Your task to perform on an android device: Search for a new lawnmower on Lowes. Image 0: 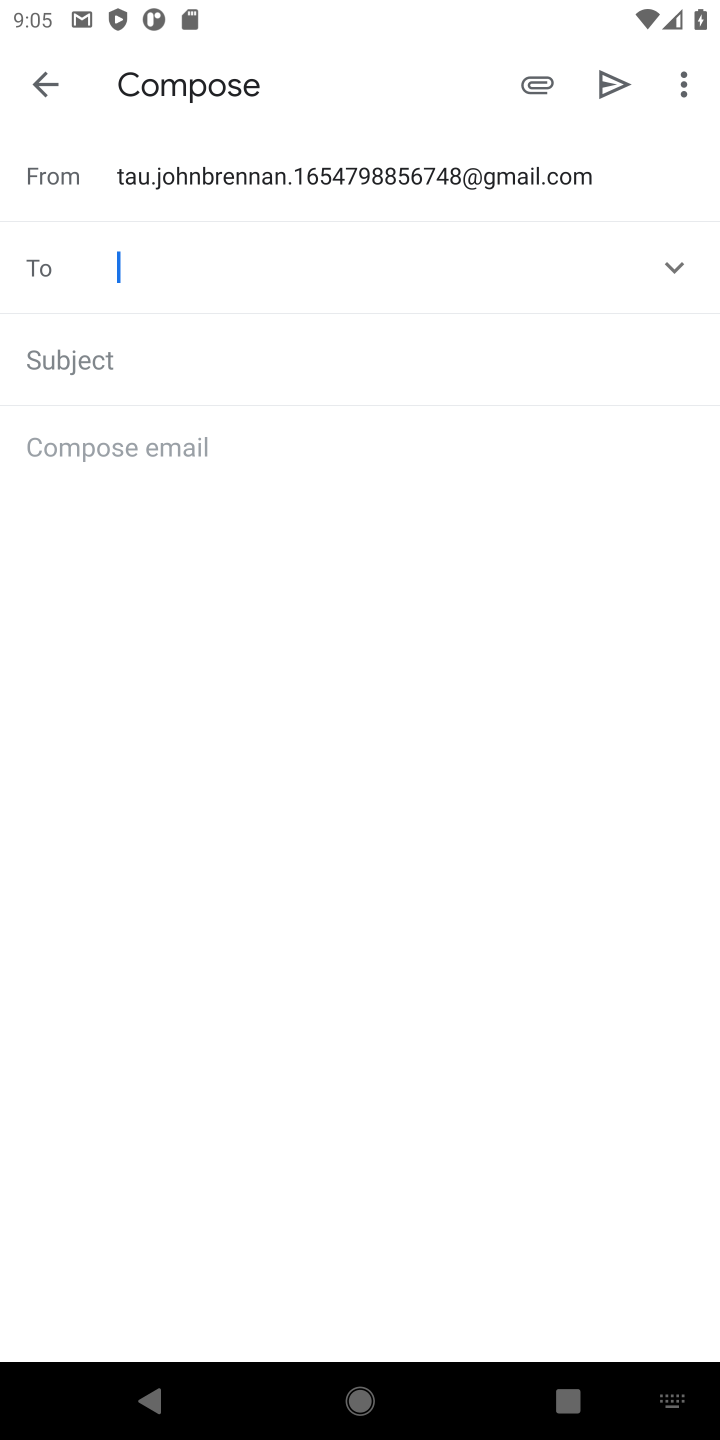
Step 0: press home button
Your task to perform on an android device: Search for a new lawnmower on Lowes. Image 1: 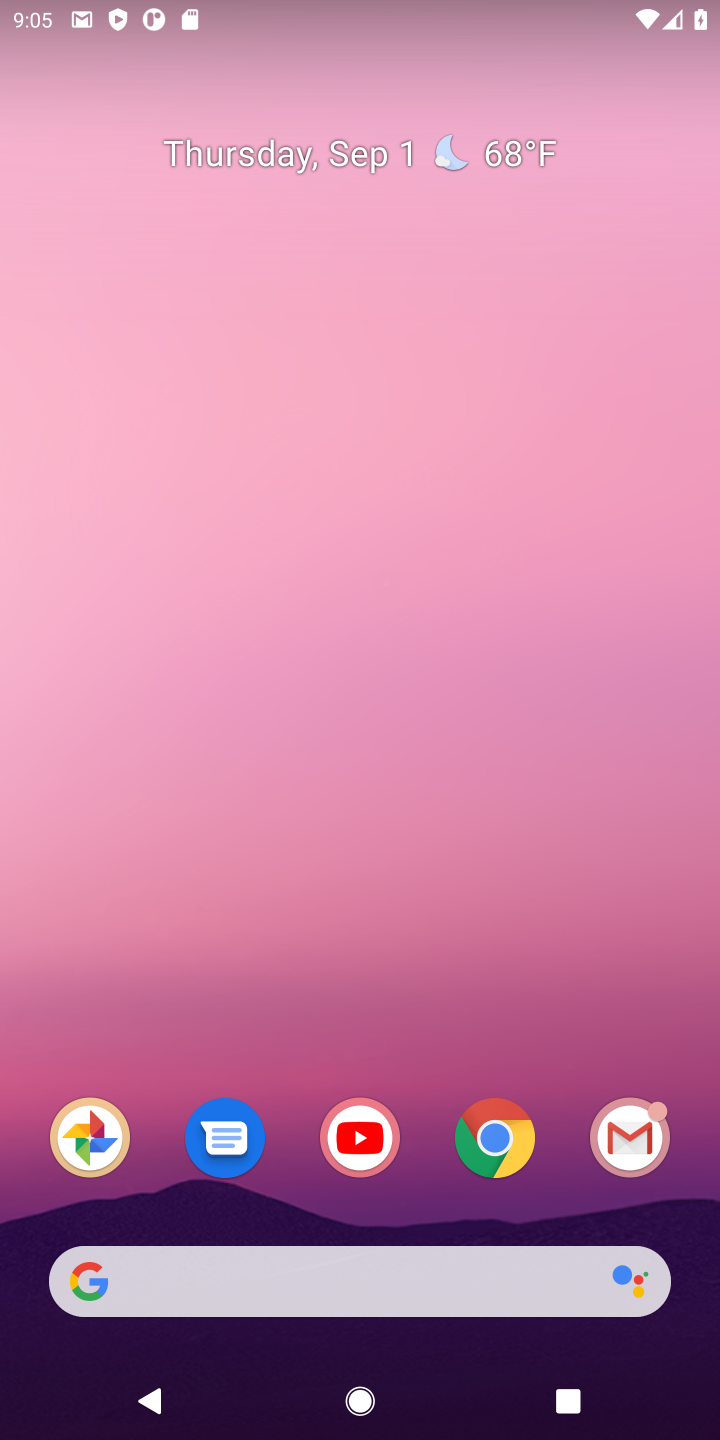
Step 1: click (503, 1151)
Your task to perform on an android device: Search for a new lawnmower on Lowes. Image 2: 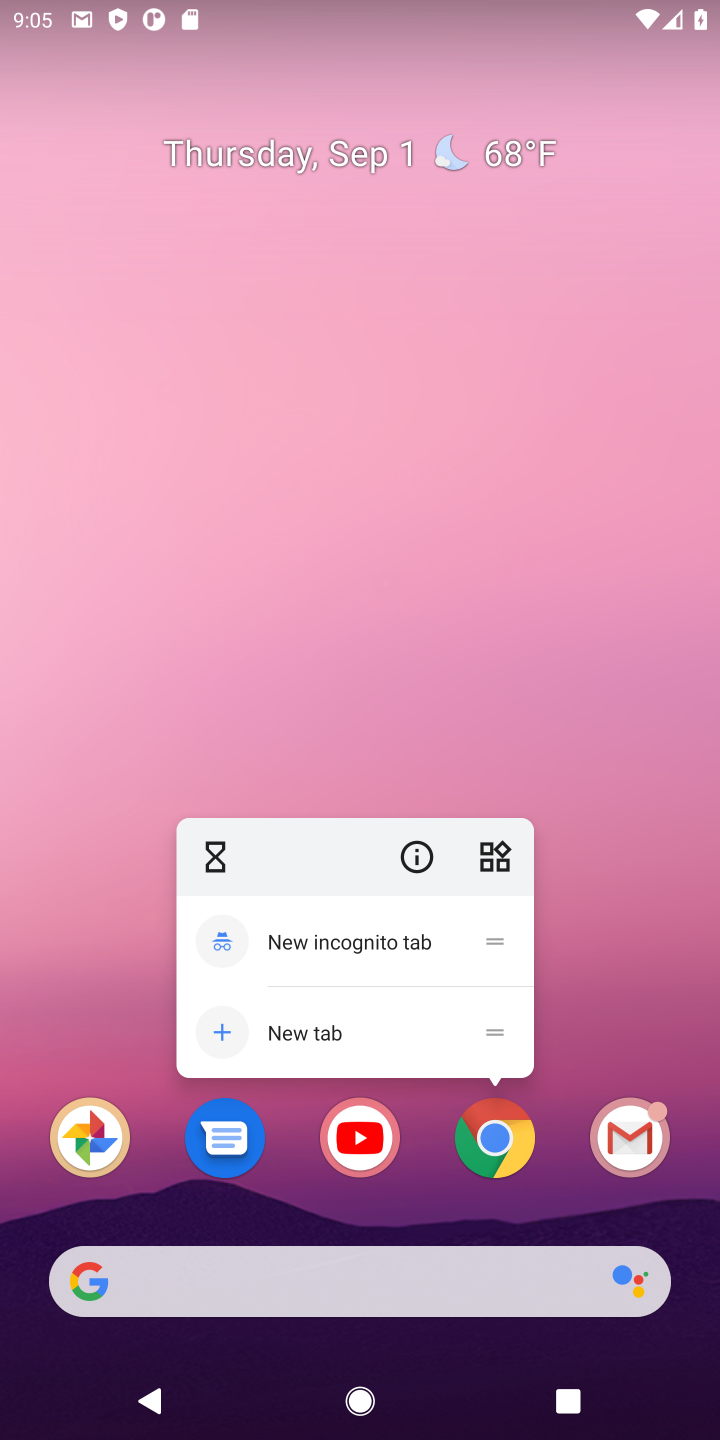
Step 2: click (490, 1137)
Your task to perform on an android device: Search for a new lawnmower on Lowes. Image 3: 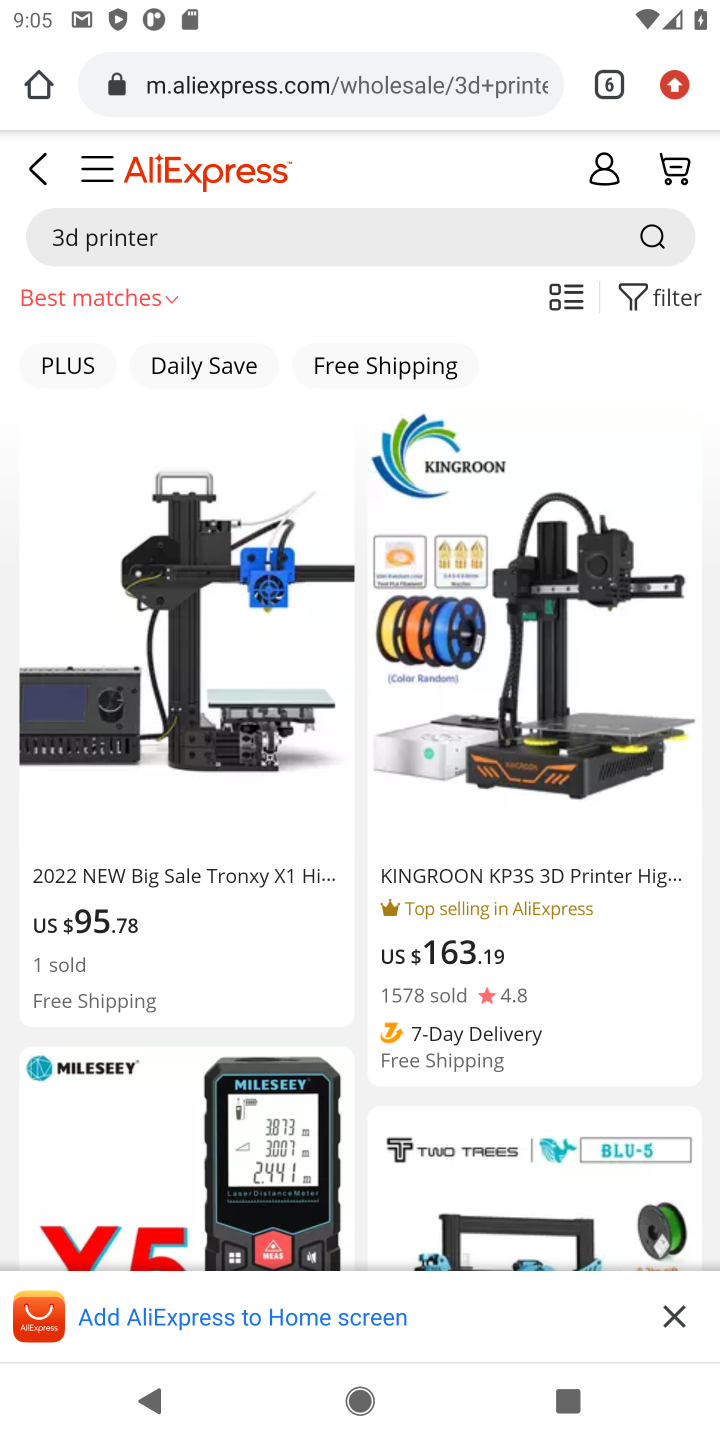
Step 3: click (613, 75)
Your task to perform on an android device: Search for a new lawnmower on Lowes. Image 4: 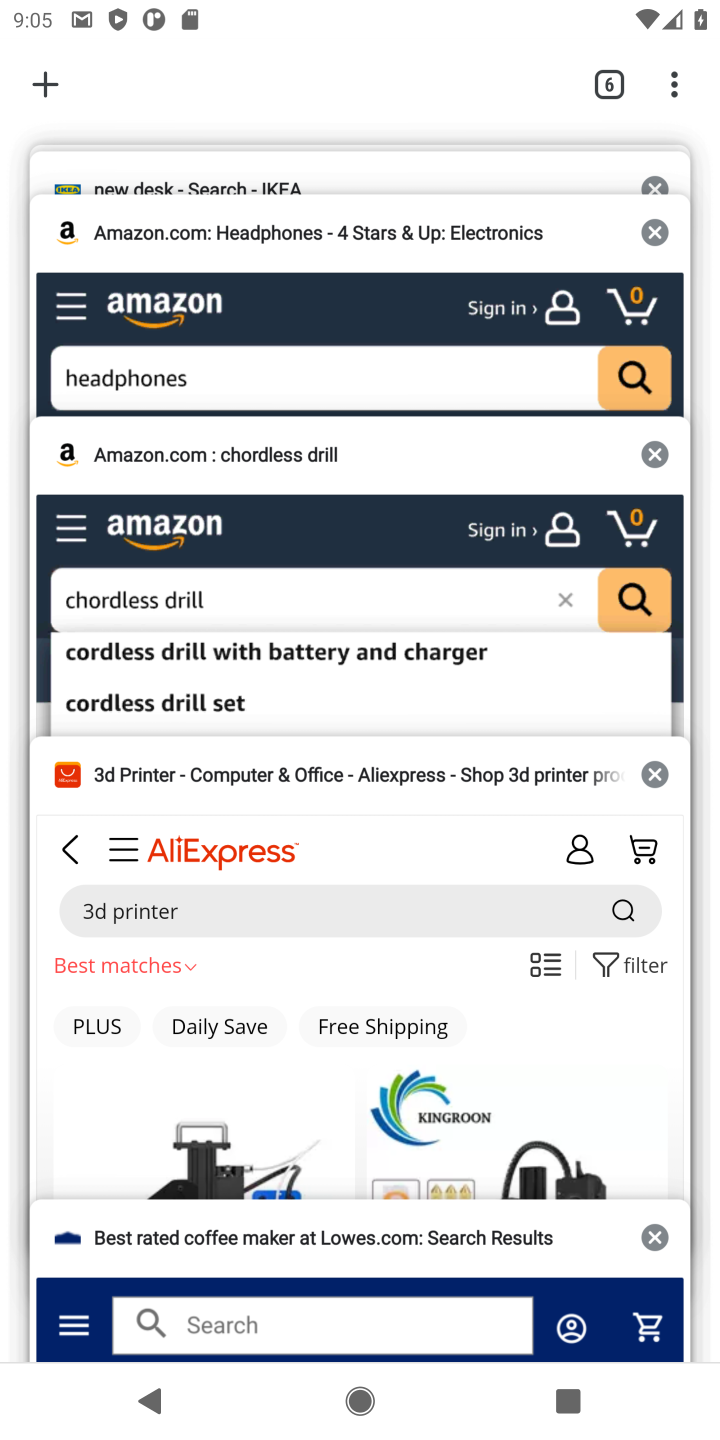
Step 4: click (291, 1249)
Your task to perform on an android device: Search for a new lawnmower on Lowes. Image 5: 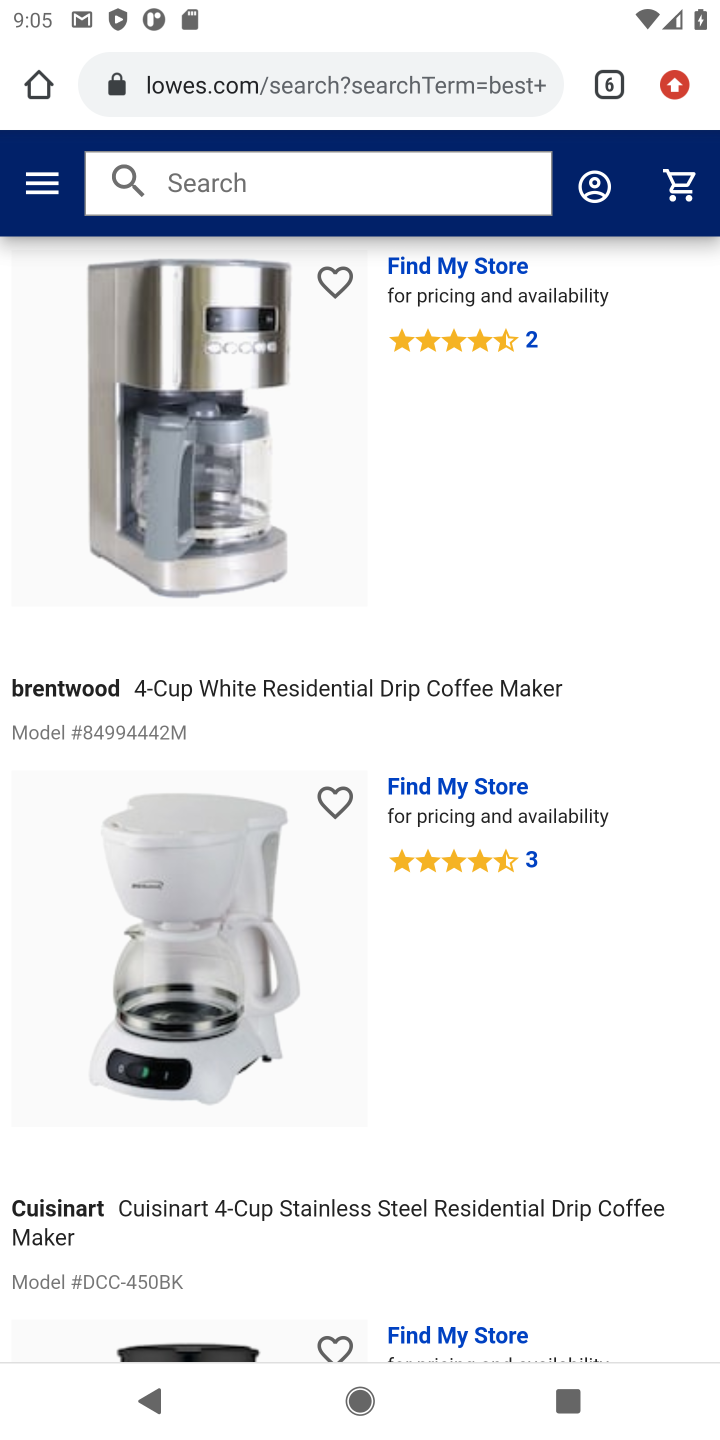
Step 5: click (451, 187)
Your task to perform on an android device: Search for a new lawnmower on Lowes. Image 6: 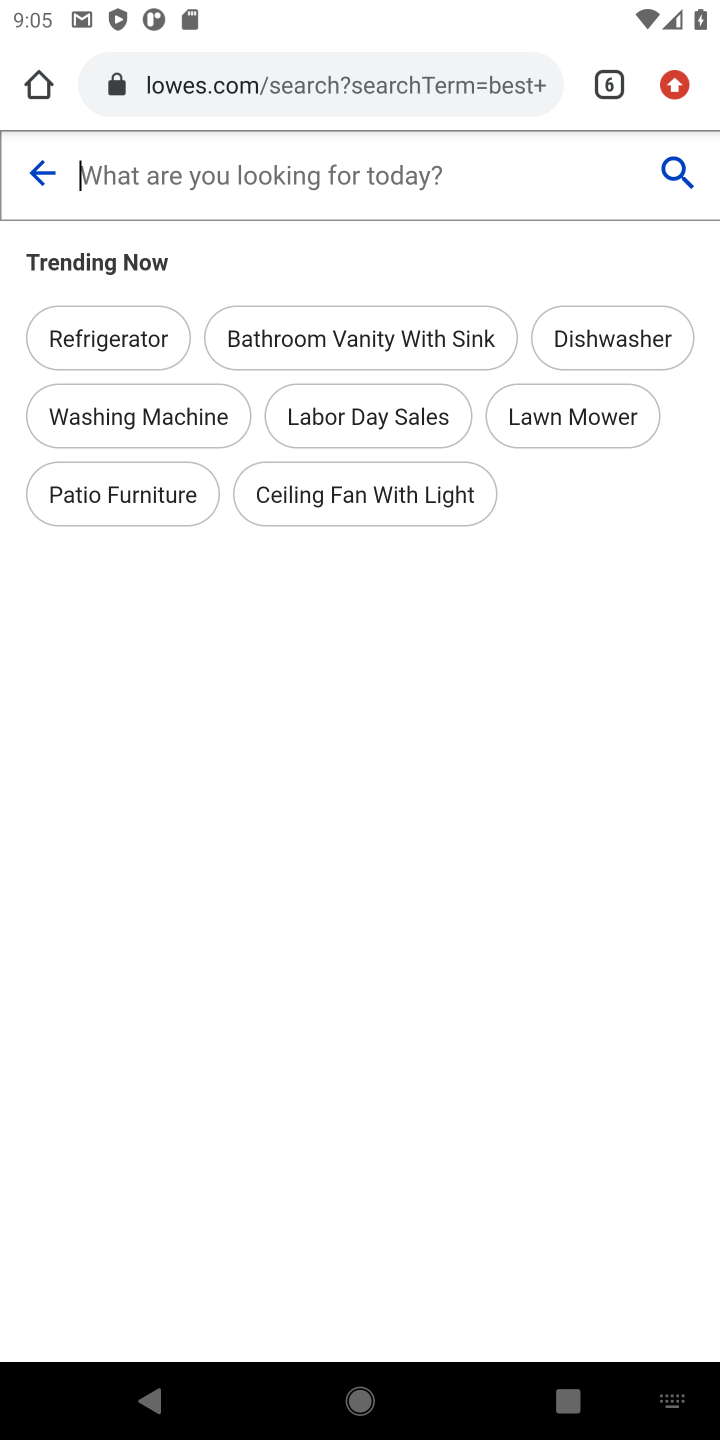
Step 6: type "new lawnmower"
Your task to perform on an android device: Search for a new lawnmower on Lowes. Image 7: 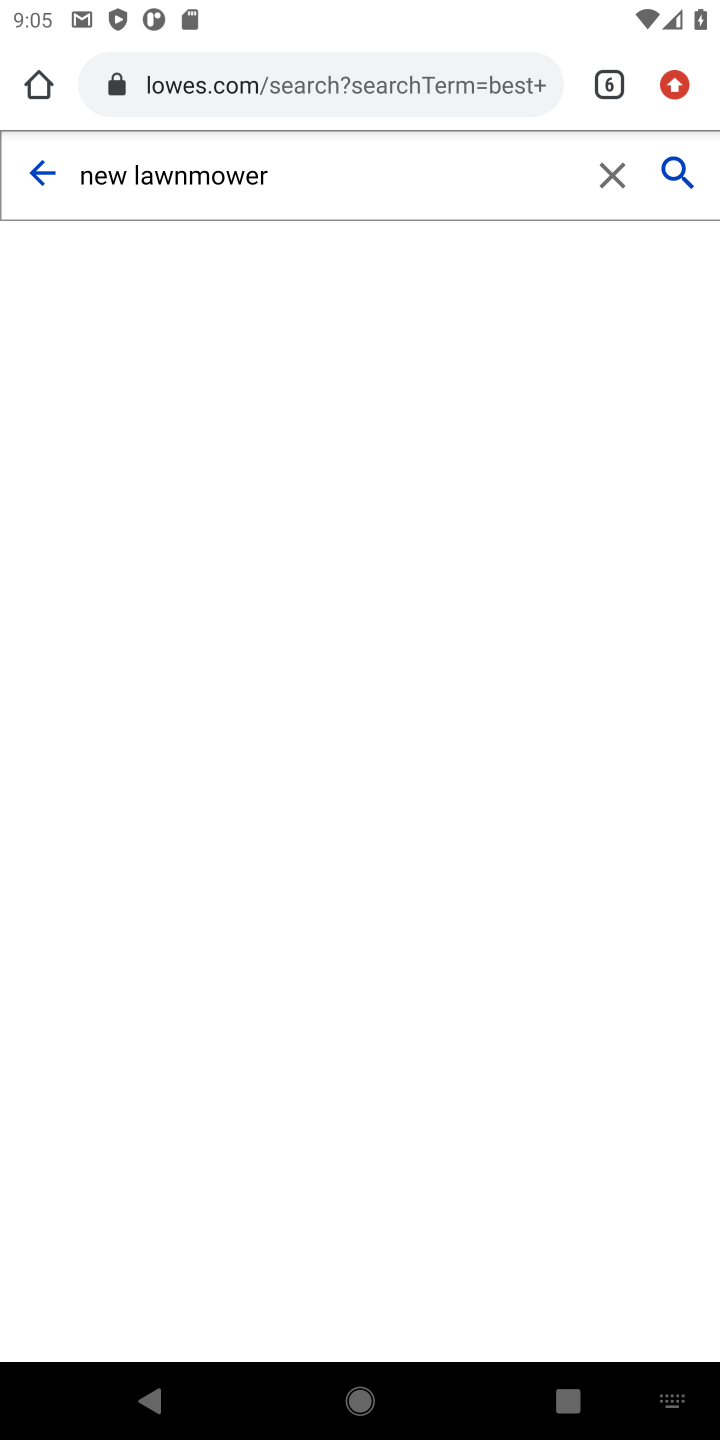
Step 7: click (679, 167)
Your task to perform on an android device: Search for a new lawnmower on Lowes. Image 8: 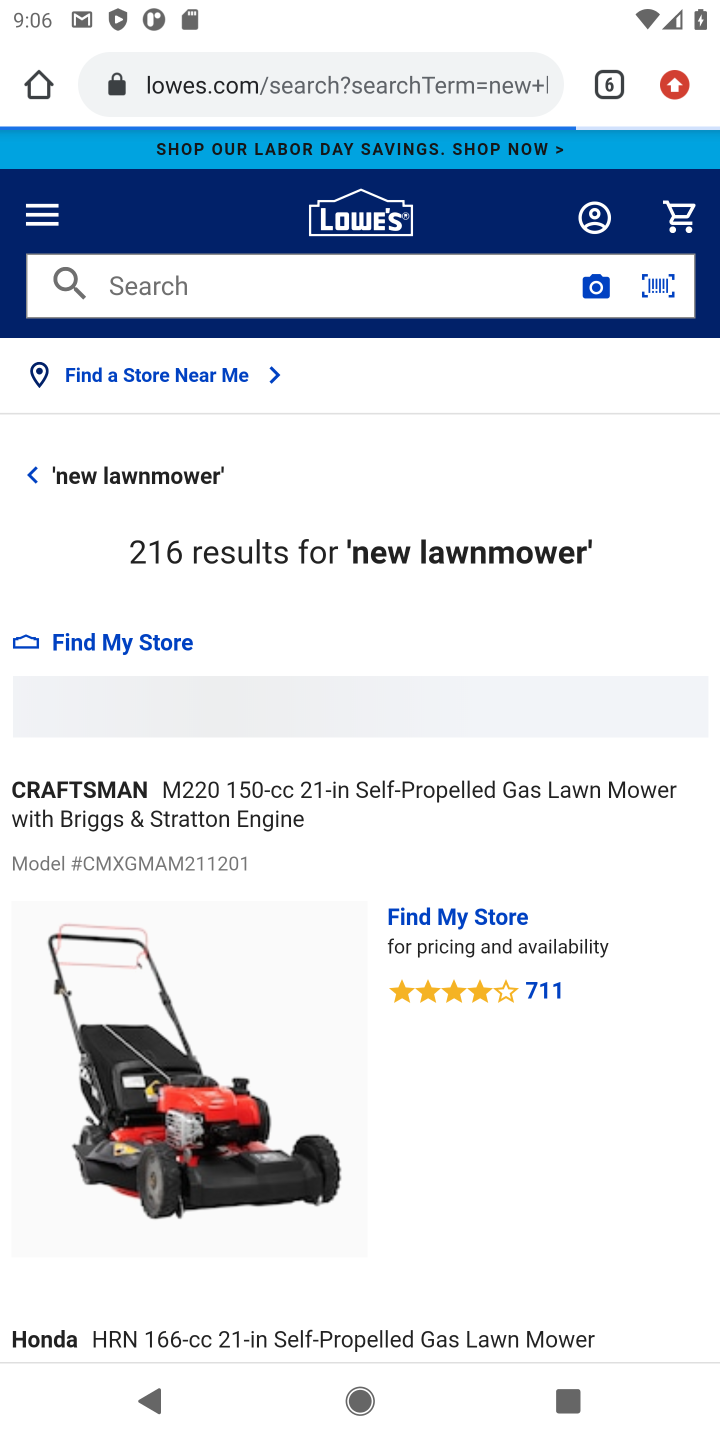
Step 8: task complete